Your task to perform on an android device: Open Google Maps and go to "Timeline" Image 0: 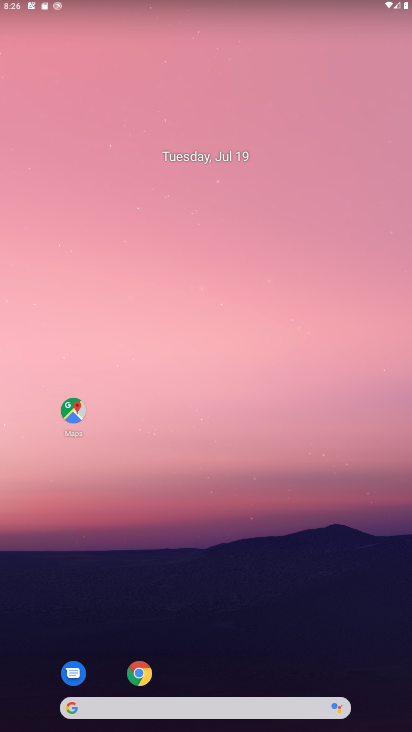
Step 0: click (63, 408)
Your task to perform on an android device: Open Google Maps and go to "Timeline" Image 1: 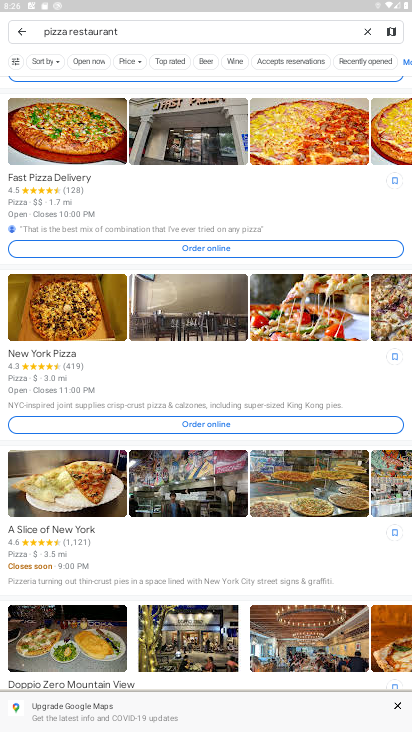
Step 1: click (364, 30)
Your task to perform on an android device: Open Google Maps and go to "Timeline" Image 2: 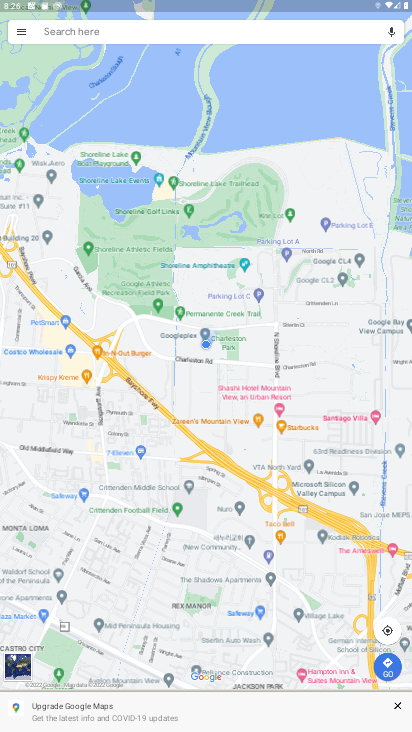
Step 2: click (17, 29)
Your task to perform on an android device: Open Google Maps and go to "Timeline" Image 3: 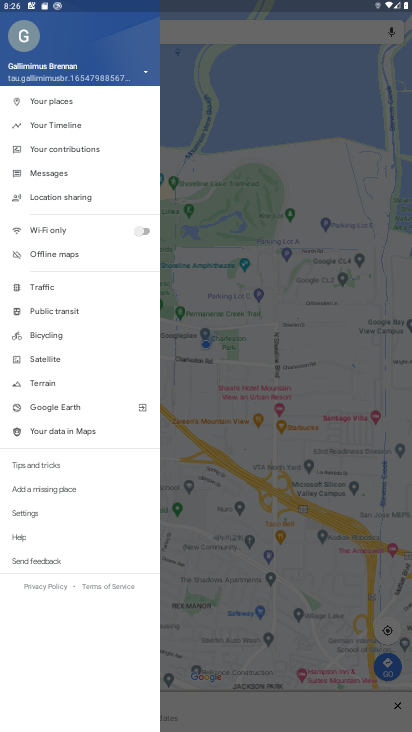
Step 3: click (48, 117)
Your task to perform on an android device: Open Google Maps and go to "Timeline" Image 4: 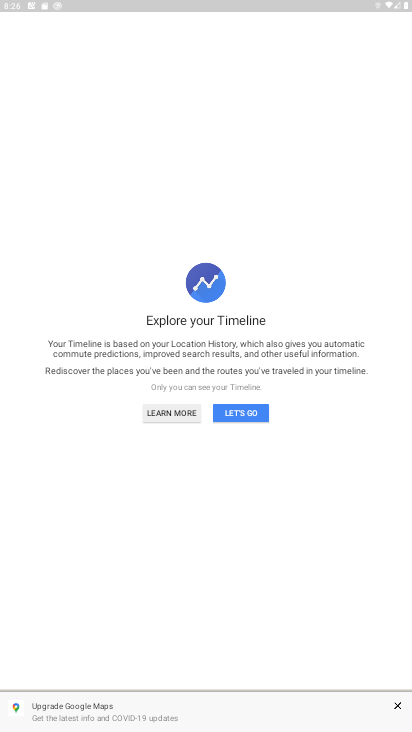
Step 4: click (242, 413)
Your task to perform on an android device: Open Google Maps and go to "Timeline" Image 5: 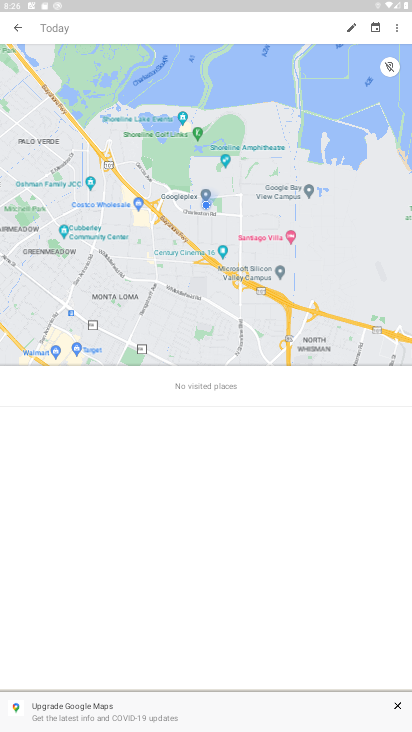
Step 5: task complete